Your task to perform on an android device: turn on the 12-hour format for clock Image 0: 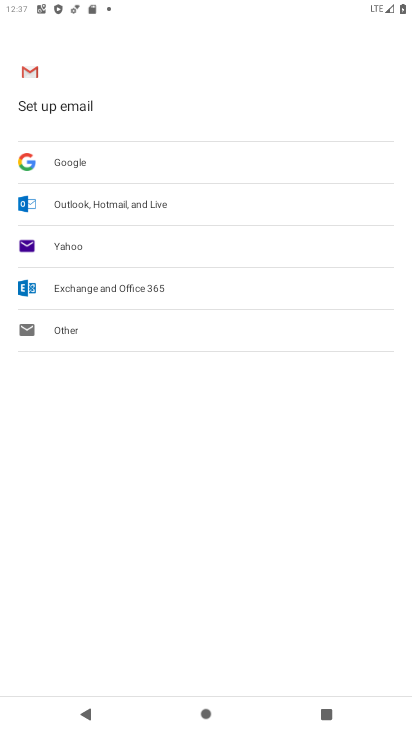
Step 0: press home button
Your task to perform on an android device: turn on the 12-hour format for clock Image 1: 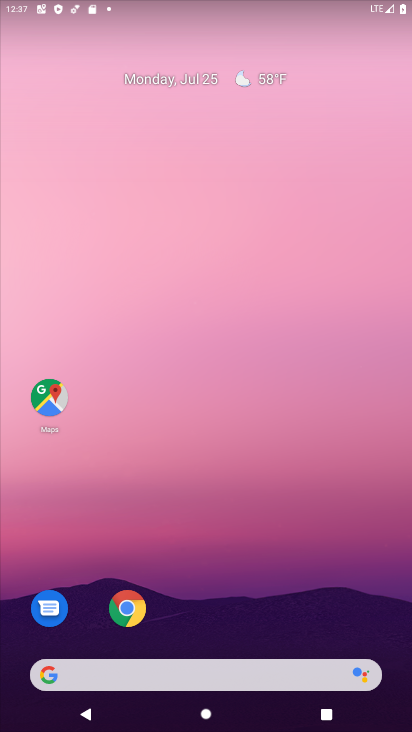
Step 1: drag from (189, 672) to (264, 159)
Your task to perform on an android device: turn on the 12-hour format for clock Image 2: 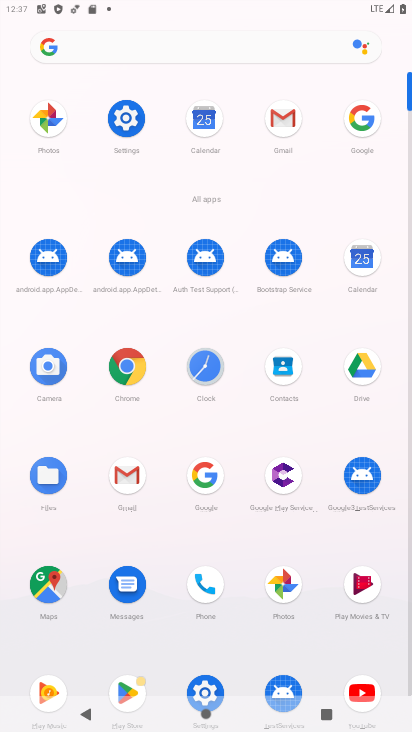
Step 2: click (206, 366)
Your task to perform on an android device: turn on the 12-hour format for clock Image 3: 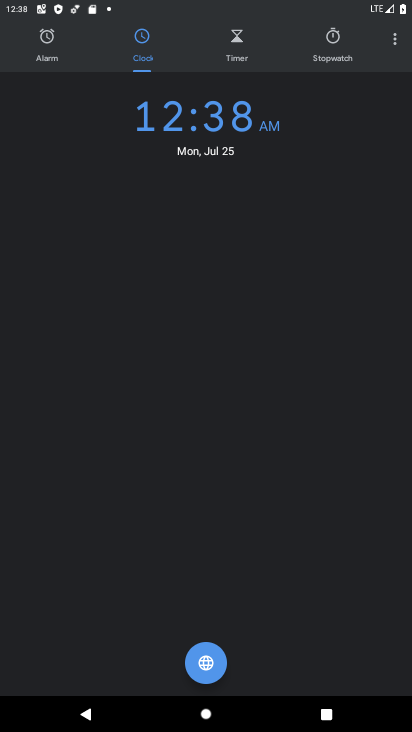
Step 3: click (395, 41)
Your task to perform on an android device: turn on the 12-hour format for clock Image 4: 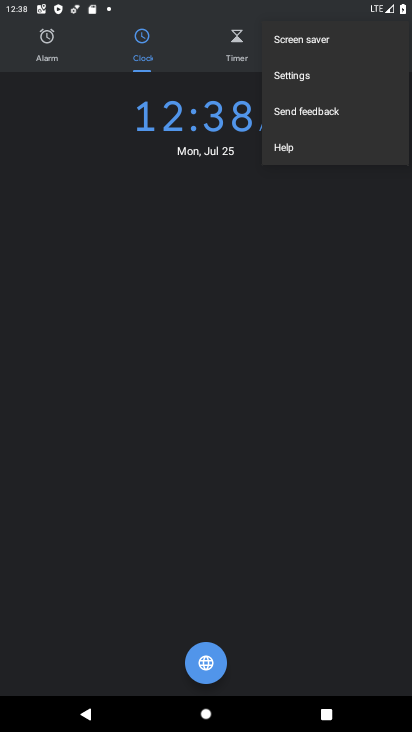
Step 4: click (305, 77)
Your task to perform on an android device: turn on the 12-hour format for clock Image 5: 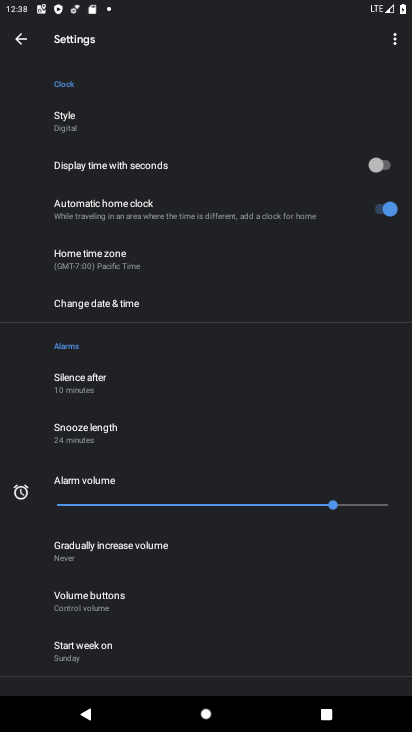
Step 5: click (133, 305)
Your task to perform on an android device: turn on the 12-hour format for clock Image 6: 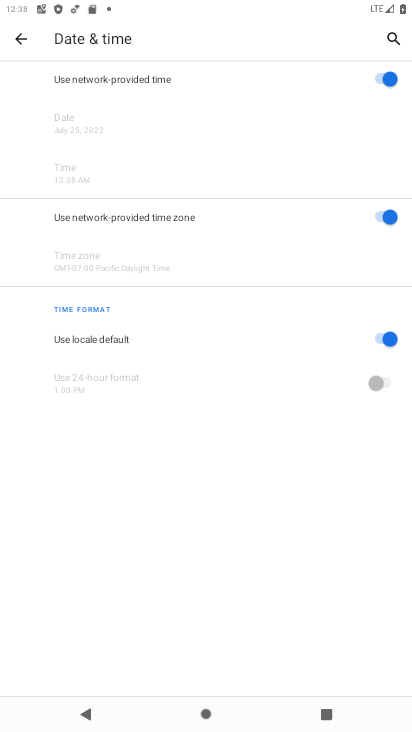
Step 6: task complete